Your task to perform on an android device: Open calendar and show me the second week of next month Image 0: 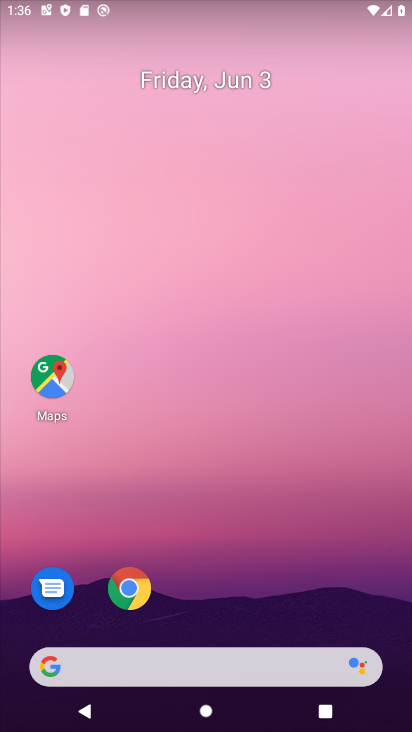
Step 0: press home button
Your task to perform on an android device: Open calendar and show me the second week of next month Image 1: 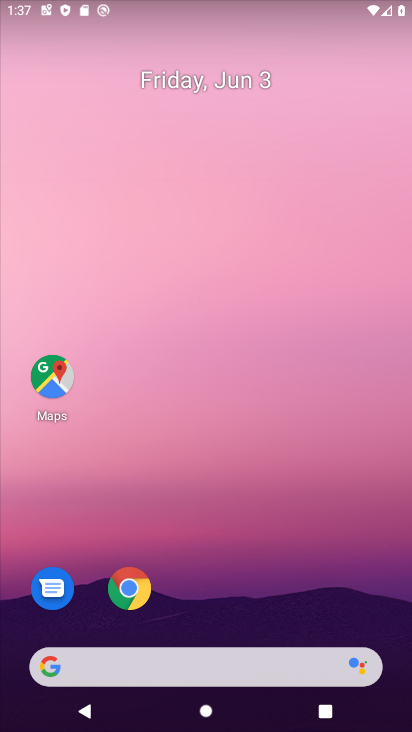
Step 1: drag from (98, 328) to (246, 127)
Your task to perform on an android device: Open calendar and show me the second week of next month Image 2: 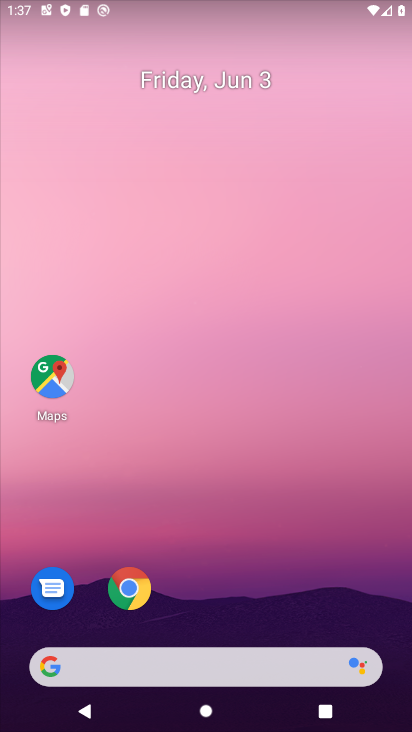
Step 2: drag from (24, 657) to (295, 116)
Your task to perform on an android device: Open calendar and show me the second week of next month Image 3: 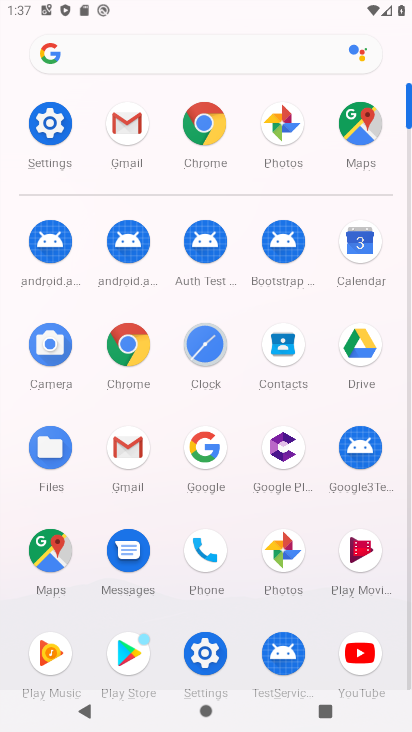
Step 3: click (368, 256)
Your task to perform on an android device: Open calendar and show me the second week of next month Image 4: 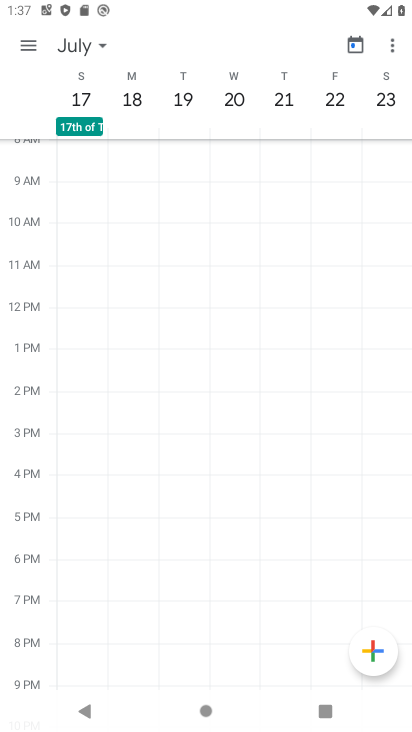
Step 4: click (82, 31)
Your task to perform on an android device: Open calendar and show me the second week of next month Image 5: 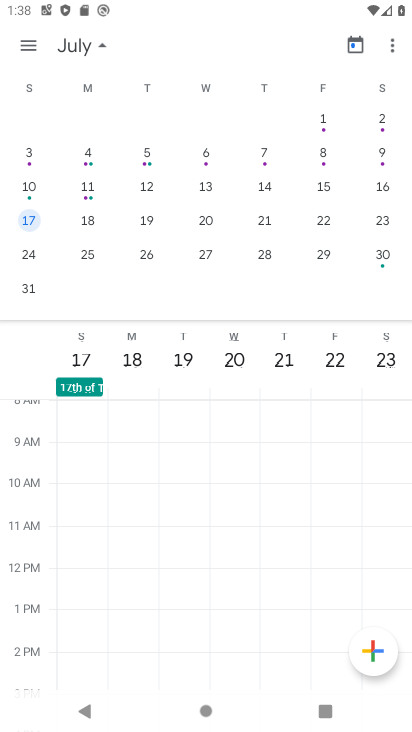
Step 5: click (316, 145)
Your task to perform on an android device: Open calendar and show me the second week of next month Image 6: 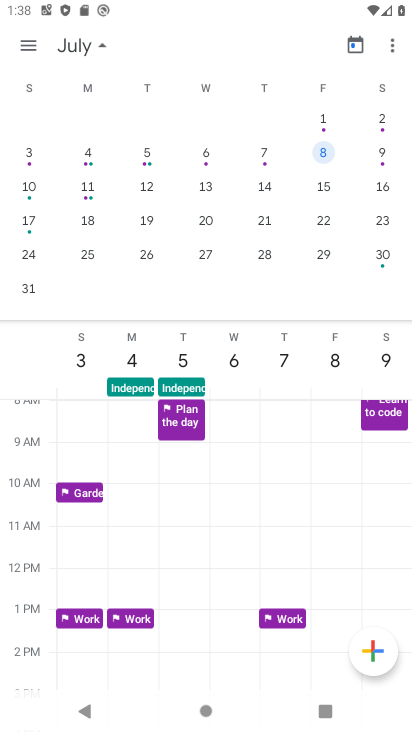
Step 6: click (101, 150)
Your task to perform on an android device: Open calendar and show me the second week of next month Image 7: 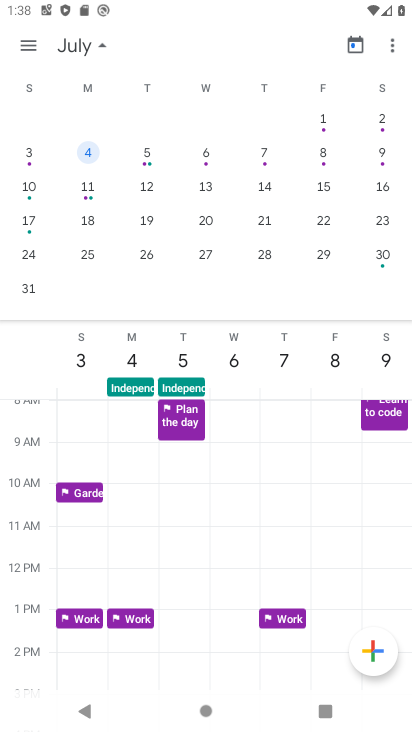
Step 7: click (149, 165)
Your task to perform on an android device: Open calendar and show me the second week of next month Image 8: 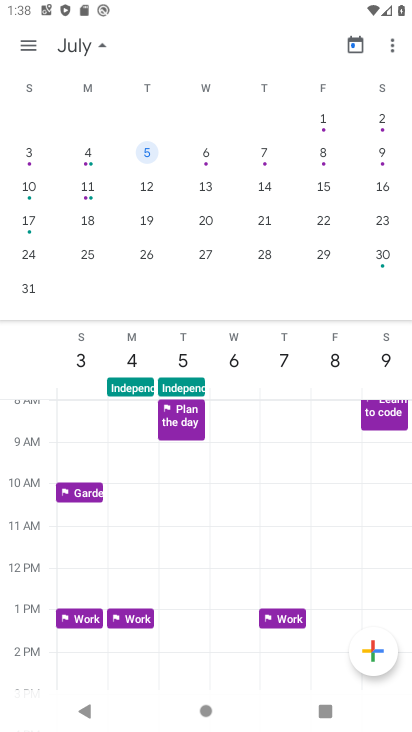
Step 8: click (197, 158)
Your task to perform on an android device: Open calendar and show me the second week of next month Image 9: 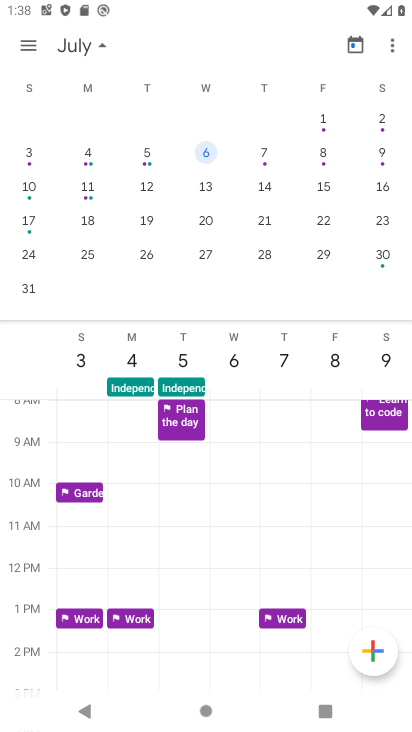
Step 9: task complete